Your task to perform on an android device: Is it going to rain tomorrow? Image 0: 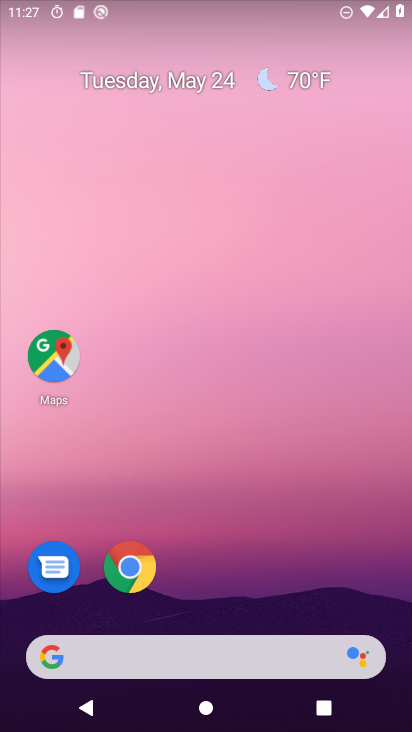
Step 0: click (291, 77)
Your task to perform on an android device: Is it going to rain tomorrow? Image 1: 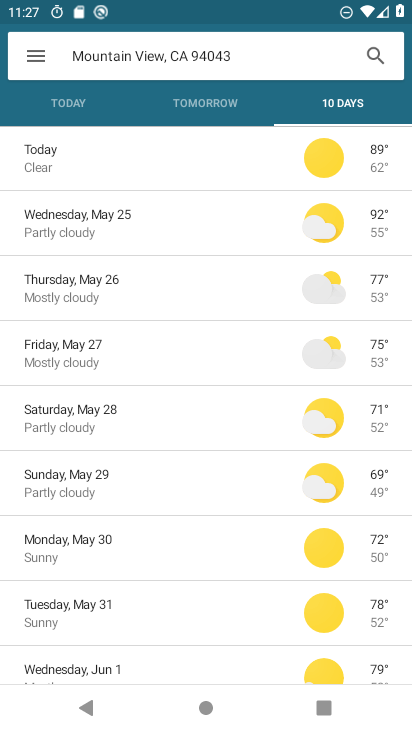
Step 1: click (197, 104)
Your task to perform on an android device: Is it going to rain tomorrow? Image 2: 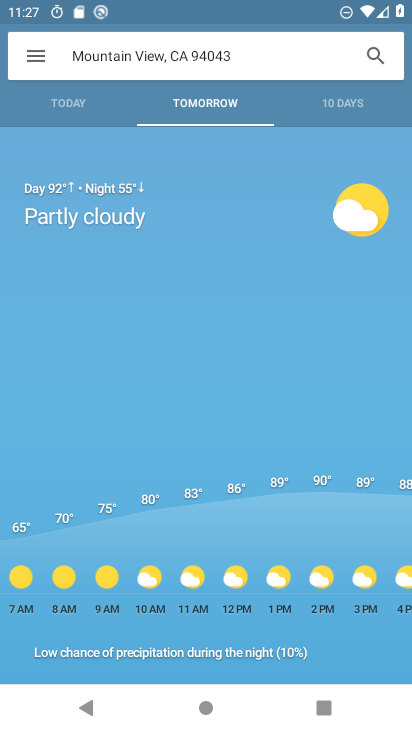
Step 2: task complete